Your task to perform on an android device: toggle location history Image 0: 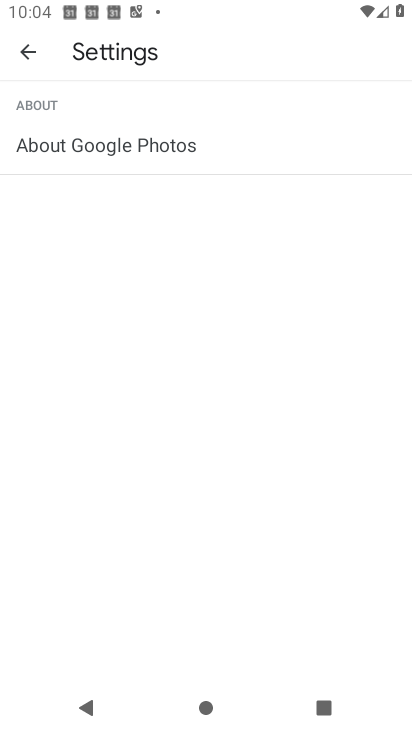
Step 0: press home button
Your task to perform on an android device: toggle location history Image 1: 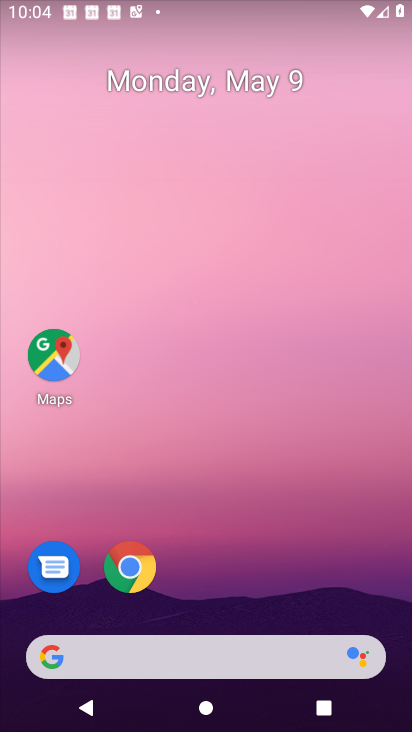
Step 1: drag from (252, 650) to (230, 143)
Your task to perform on an android device: toggle location history Image 2: 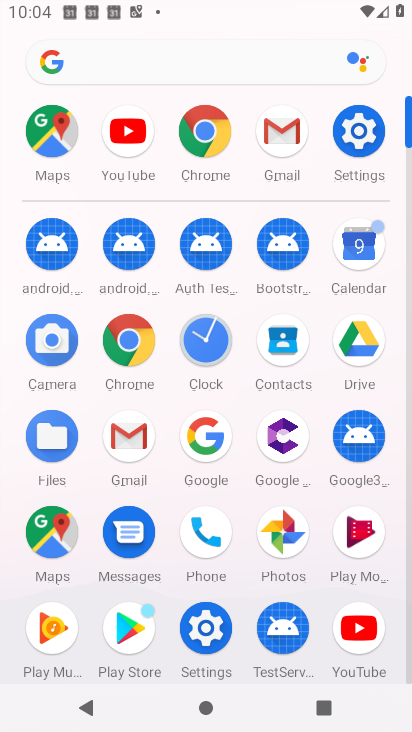
Step 2: click (187, 619)
Your task to perform on an android device: toggle location history Image 3: 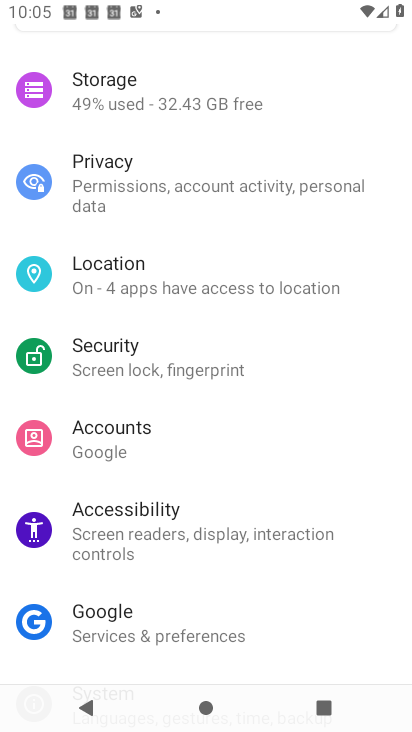
Step 3: click (122, 268)
Your task to perform on an android device: toggle location history Image 4: 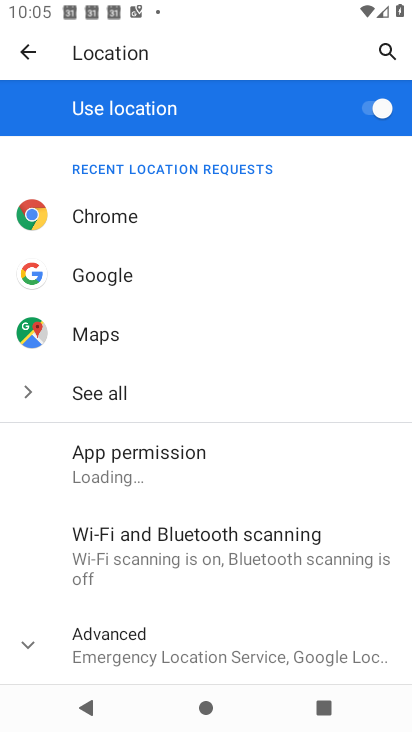
Step 4: drag from (184, 615) to (182, 206)
Your task to perform on an android device: toggle location history Image 5: 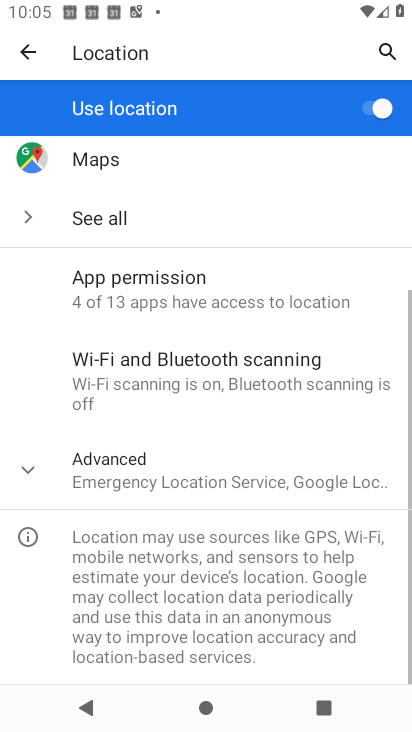
Step 5: click (134, 463)
Your task to perform on an android device: toggle location history Image 6: 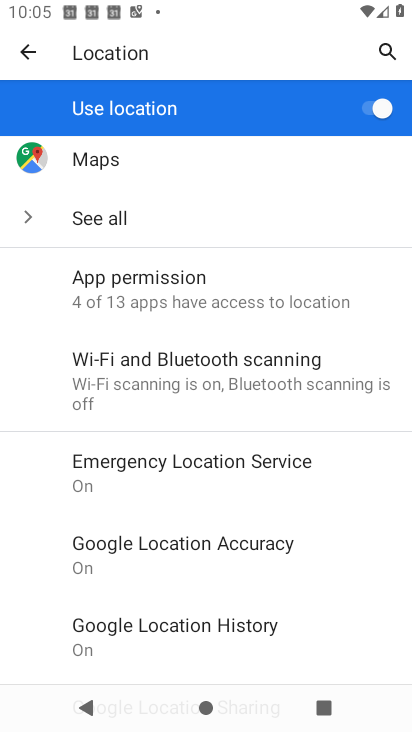
Step 6: click (242, 625)
Your task to perform on an android device: toggle location history Image 7: 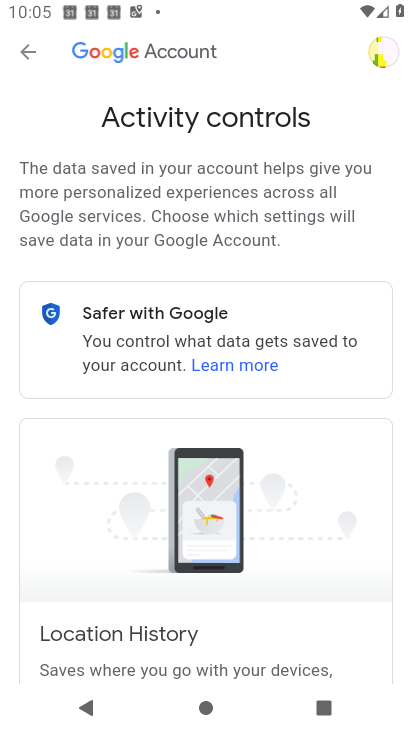
Step 7: drag from (223, 598) to (185, 296)
Your task to perform on an android device: toggle location history Image 8: 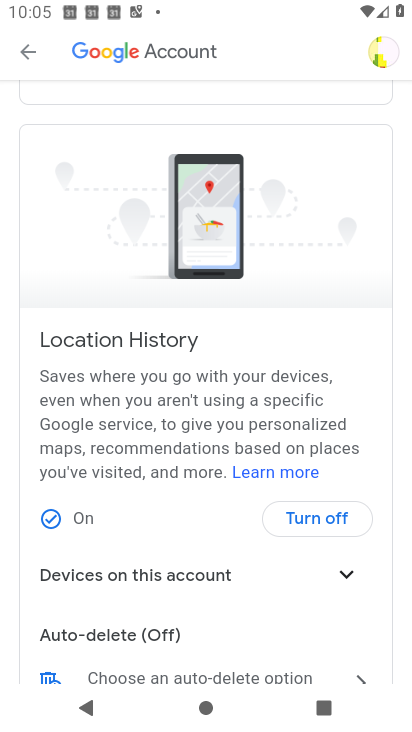
Step 8: click (312, 524)
Your task to perform on an android device: toggle location history Image 9: 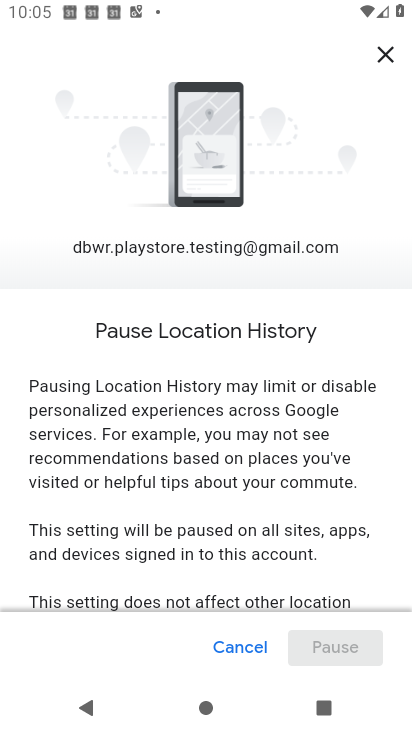
Step 9: drag from (355, 606) to (306, 317)
Your task to perform on an android device: toggle location history Image 10: 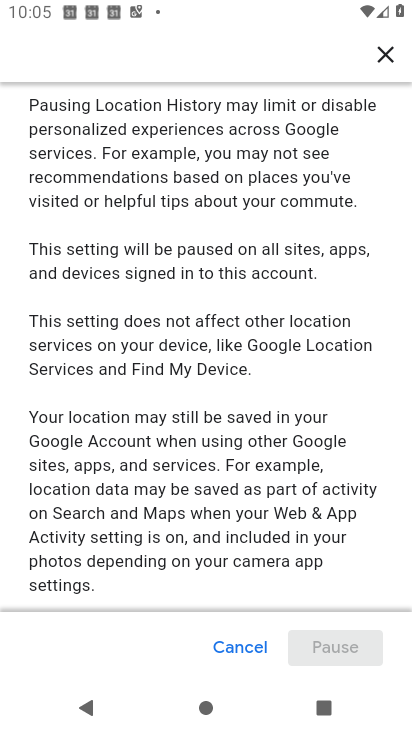
Step 10: drag from (289, 573) to (216, 146)
Your task to perform on an android device: toggle location history Image 11: 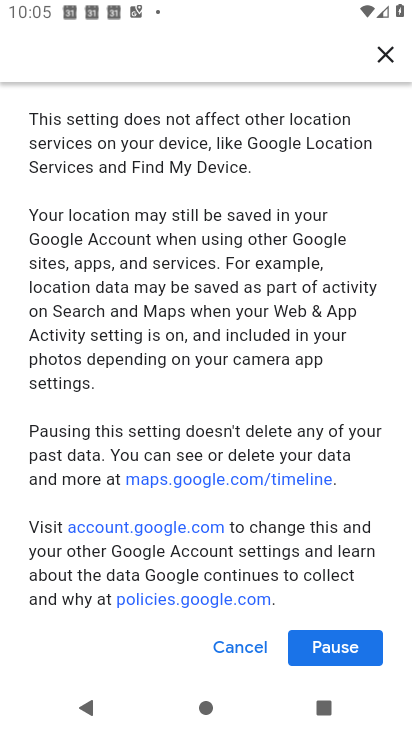
Step 11: click (321, 645)
Your task to perform on an android device: toggle location history Image 12: 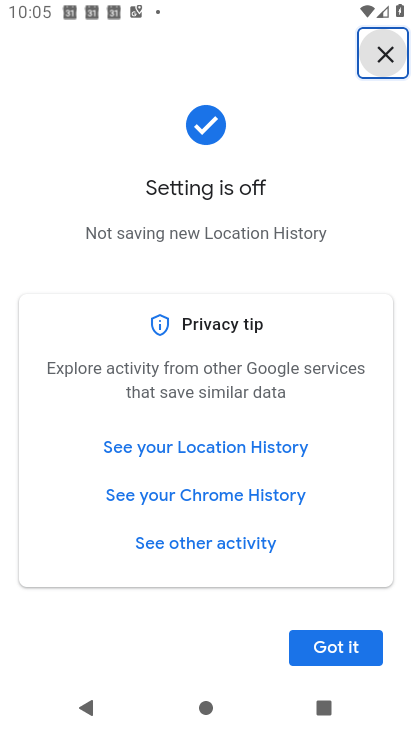
Step 12: click (324, 635)
Your task to perform on an android device: toggle location history Image 13: 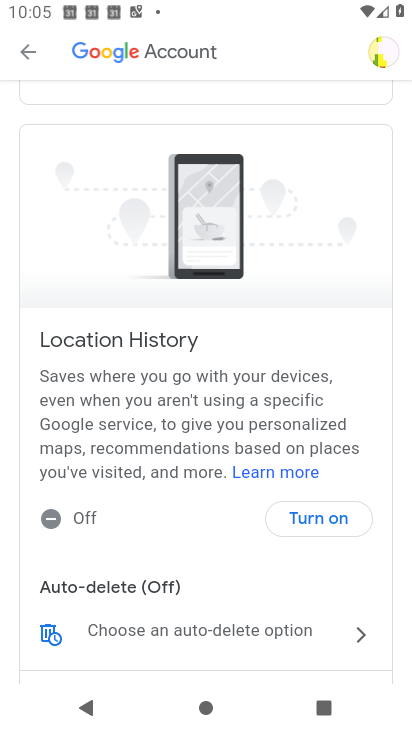
Step 13: task complete